Your task to perform on an android device: toggle show notifications on the lock screen Image 0: 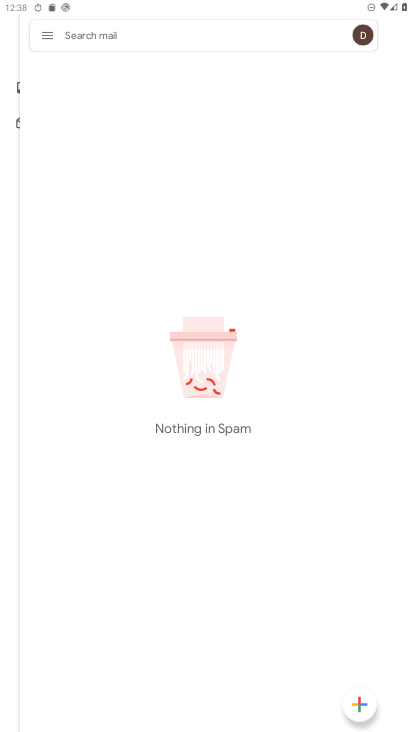
Step 0: press home button
Your task to perform on an android device: toggle show notifications on the lock screen Image 1: 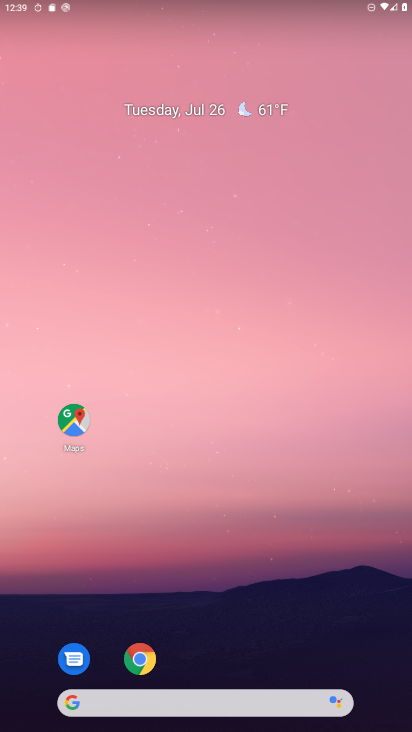
Step 1: drag from (39, 694) to (235, 231)
Your task to perform on an android device: toggle show notifications on the lock screen Image 2: 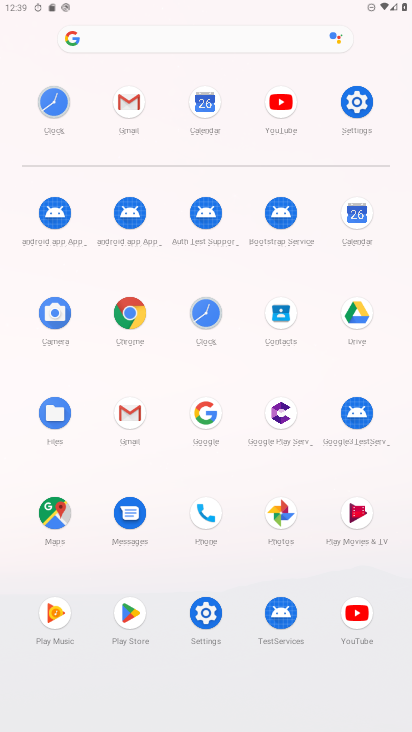
Step 2: click (200, 597)
Your task to perform on an android device: toggle show notifications on the lock screen Image 3: 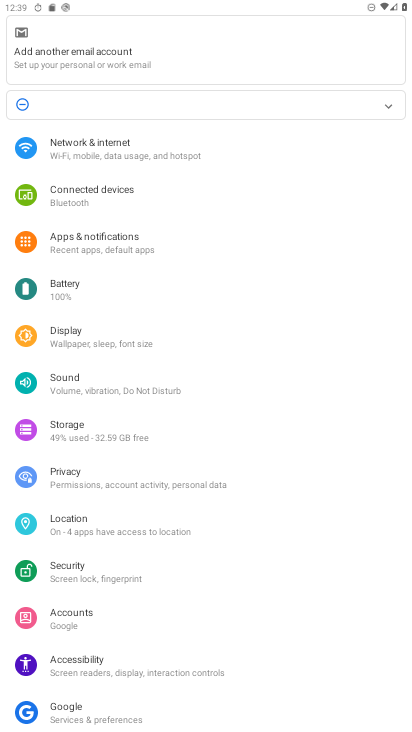
Step 3: click (116, 250)
Your task to perform on an android device: toggle show notifications on the lock screen Image 4: 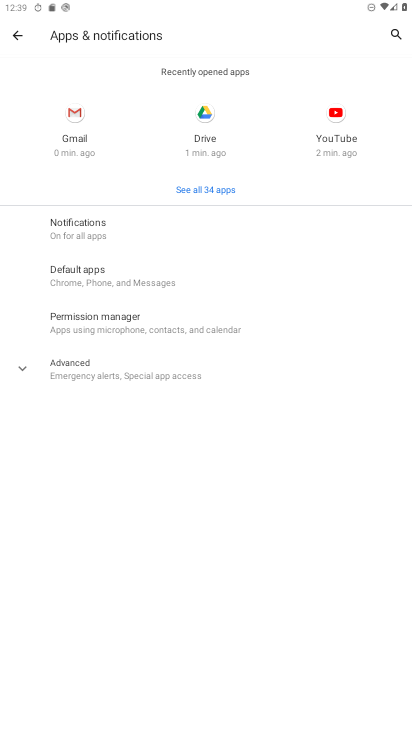
Step 4: click (100, 233)
Your task to perform on an android device: toggle show notifications on the lock screen Image 5: 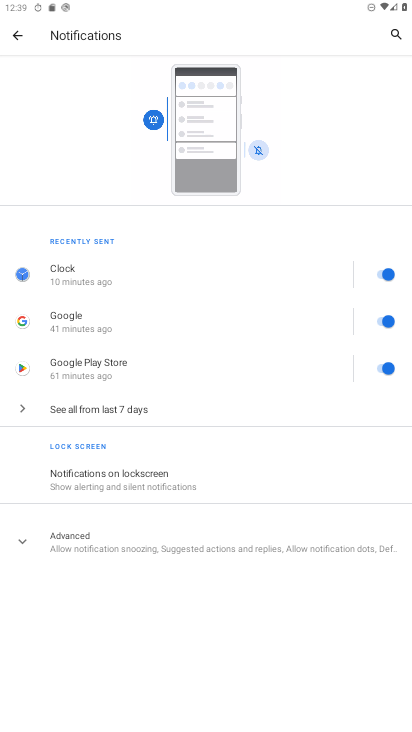
Step 5: click (118, 553)
Your task to perform on an android device: toggle show notifications on the lock screen Image 6: 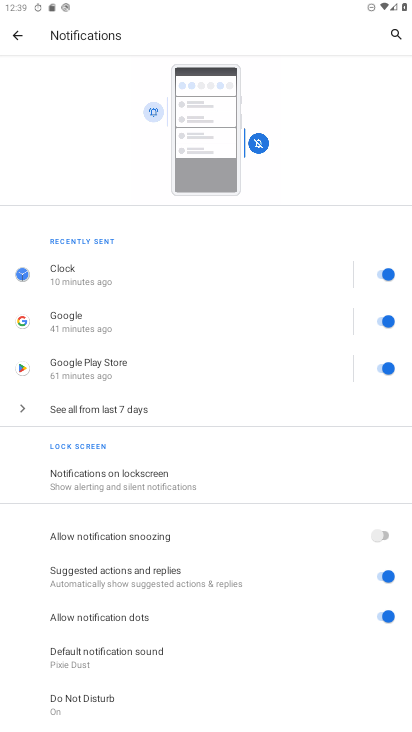
Step 6: click (123, 484)
Your task to perform on an android device: toggle show notifications on the lock screen Image 7: 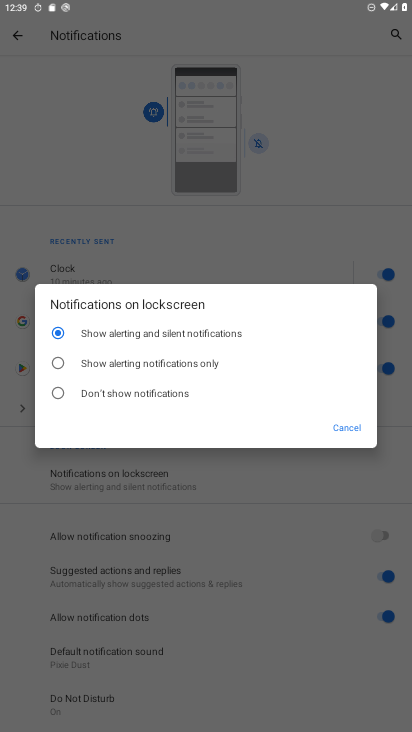
Step 7: task complete